Your task to perform on an android device: Open sound settings Image 0: 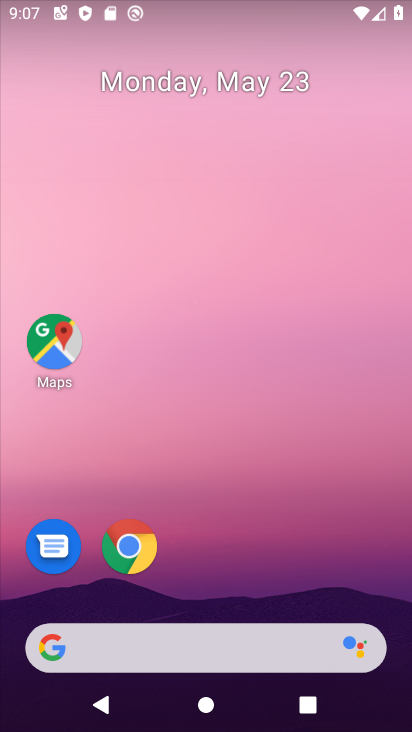
Step 0: drag from (383, 595) to (338, 104)
Your task to perform on an android device: Open sound settings Image 1: 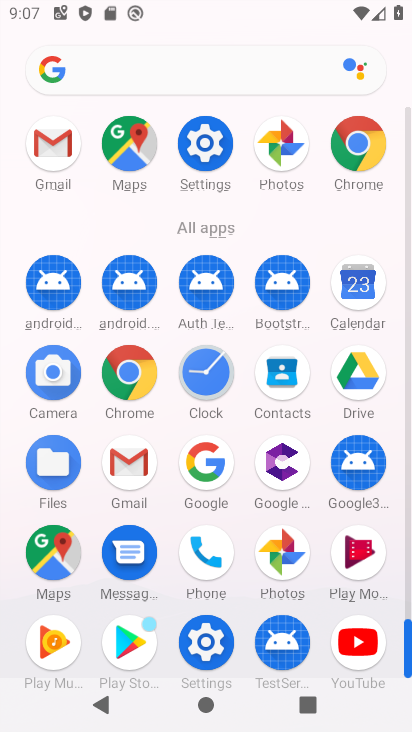
Step 1: click (206, 642)
Your task to perform on an android device: Open sound settings Image 2: 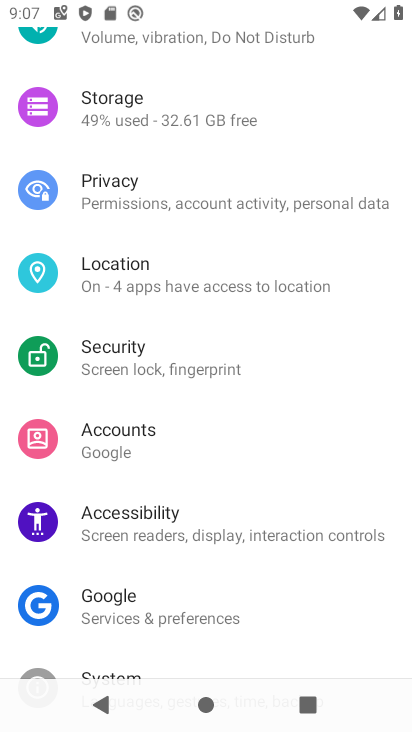
Step 2: drag from (284, 121) to (316, 462)
Your task to perform on an android device: Open sound settings Image 3: 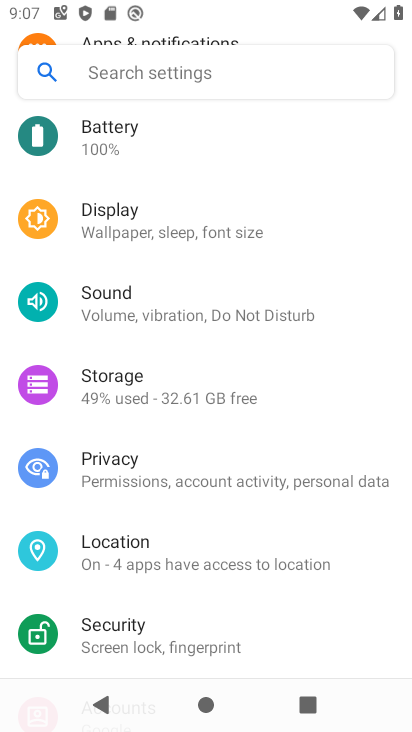
Step 3: click (113, 289)
Your task to perform on an android device: Open sound settings Image 4: 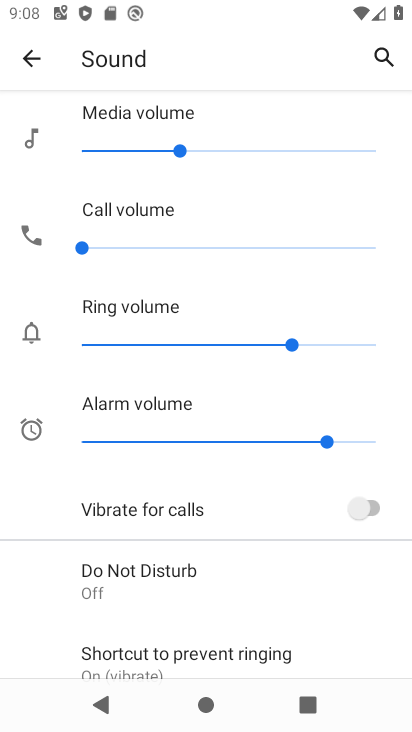
Step 4: drag from (258, 620) to (339, 171)
Your task to perform on an android device: Open sound settings Image 5: 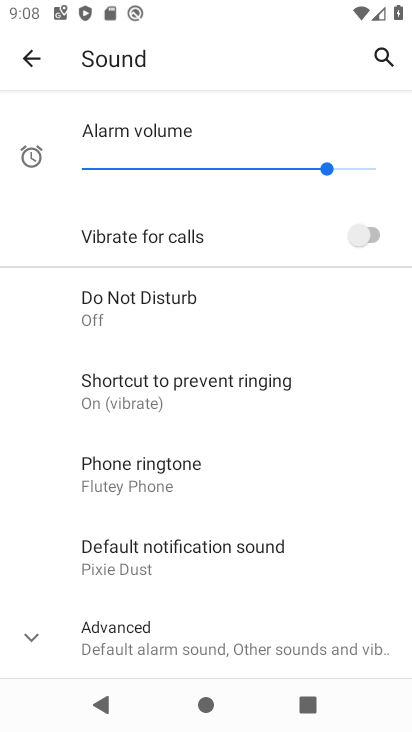
Step 5: click (27, 635)
Your task to perform on an android device: Open sound settings Image 6: 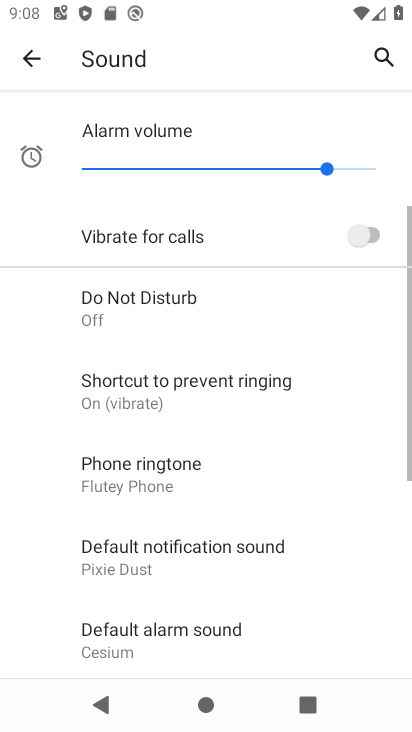
Step 6: task complete